Your task to perform on an android device: What's the weather today? Image 0: 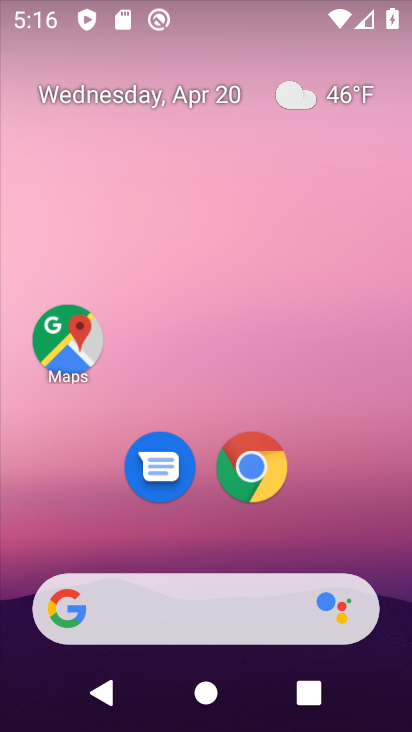
Step 0: click (278, 0)
Your task to perform on an android device: What's the weather today? Image 1: 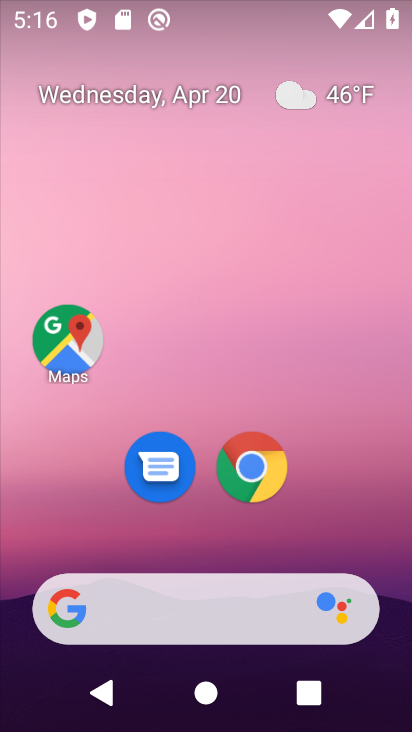
Step 1: click (338, 101)
Your task to perform on an android device: What's the weather today? Image 2: 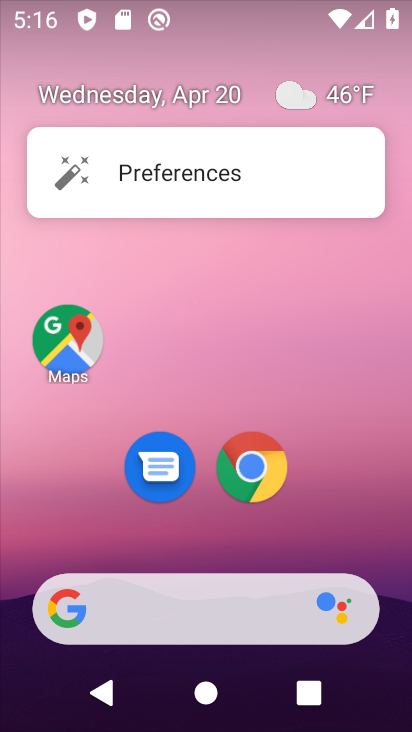
Step 2: click (328, 92)
Your task to perform on an android device: What's the weather today? Image 3: 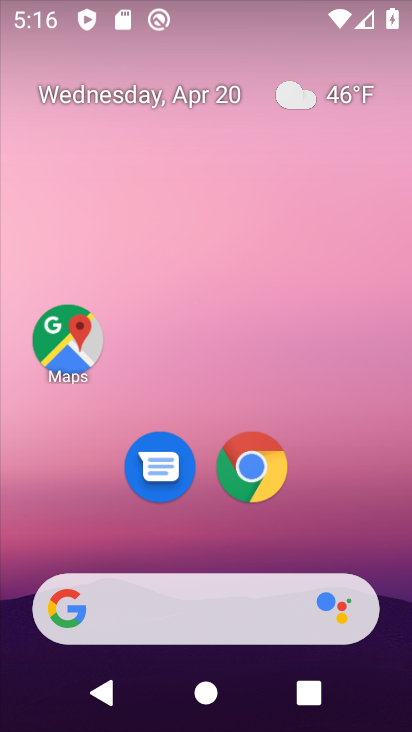
Step 3: click (348, 89)
Your task to perform on an android device: What's the weather today? Image 4: 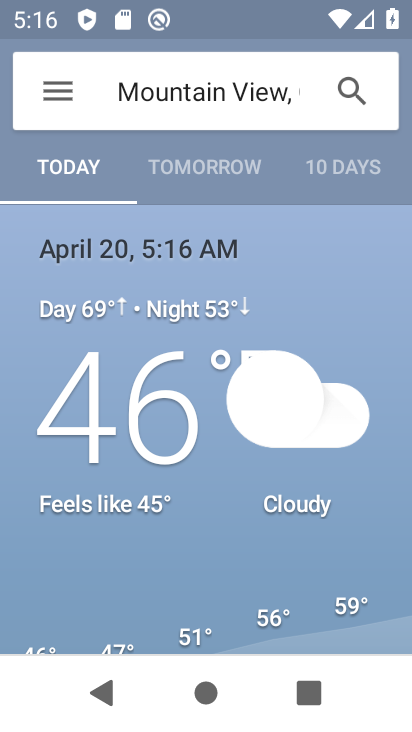
Step 4: task complete